Your task to perform on an android device: turn on airplane mode Image 0: 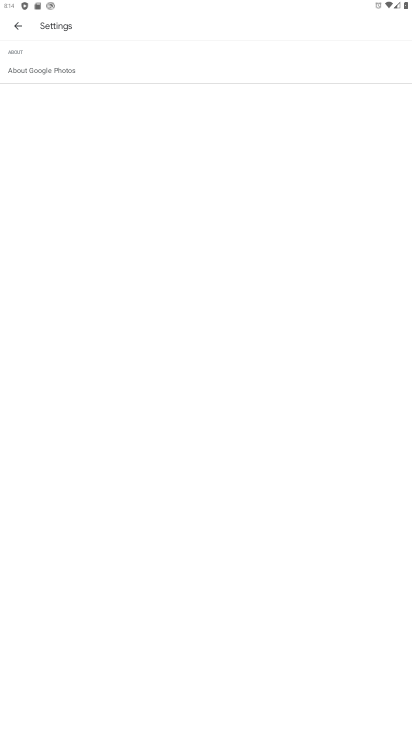
Step 0: drag from (276, 658) to (234, 208)
Your task to perform on an android device: turn on airplane mode Image 1: 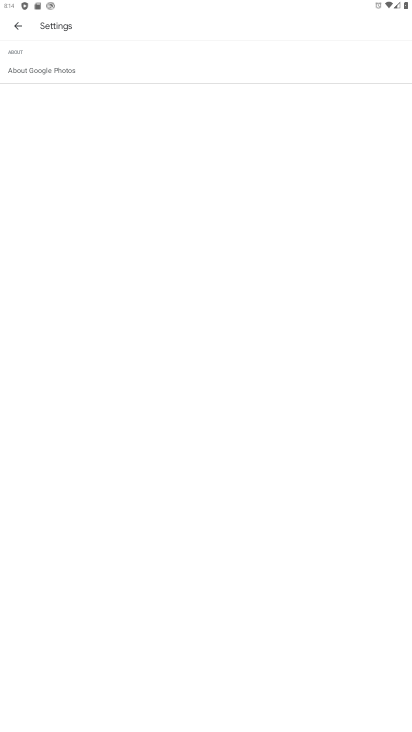
Step 1: press back button
Your task to perform on an android device: turn on airplane mode Image 2: 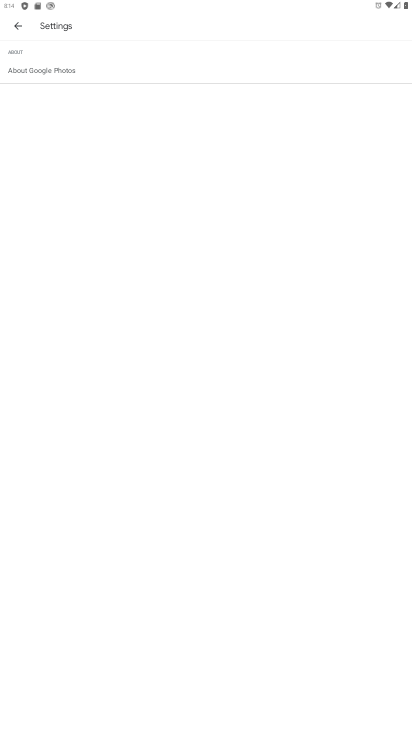
Step 2: press back button
Your task to perform on an android device: turn on airplane mode Image 3: 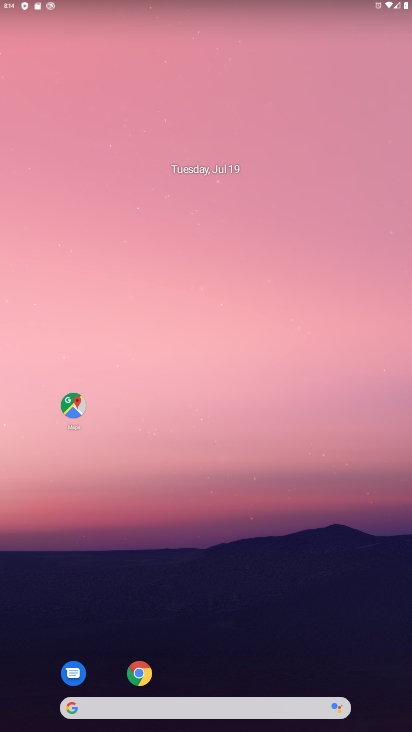
Step 3: drag from (197, 617) to (148, 147)
Your task to perform on an android device: turn on airplane mode Image 4: 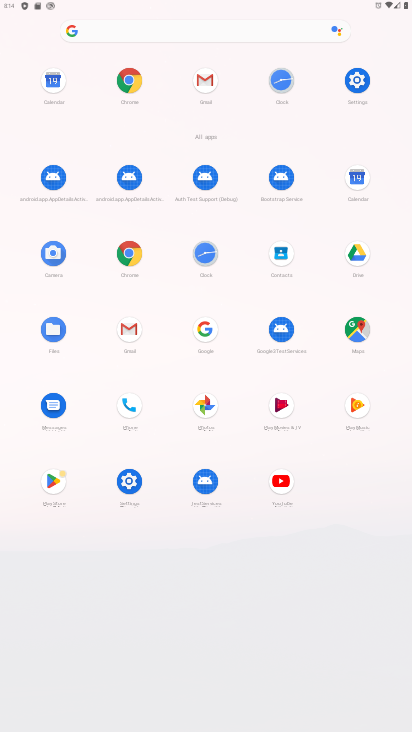
Step 4: click (361, 76)
Your task to perform on an android device: turn on airplane mode Image 5: 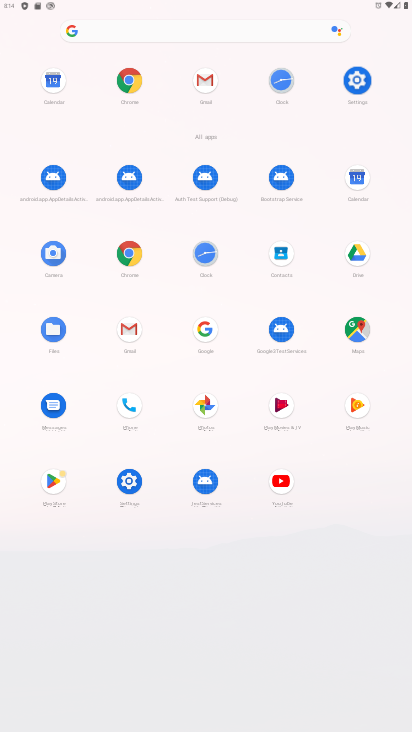
Step 5: click (360, 77)
Your task to perform on an android device: turn on airplane mode Image 6: 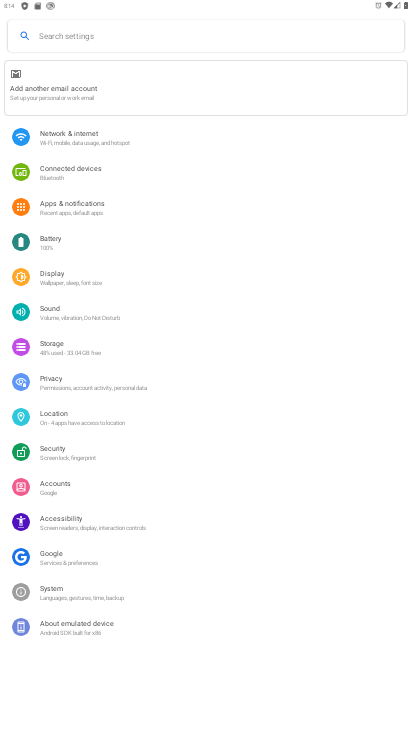
Step 6: click (79, 134)
Your task to perform on an android device: turn on airplane mode Image 7: 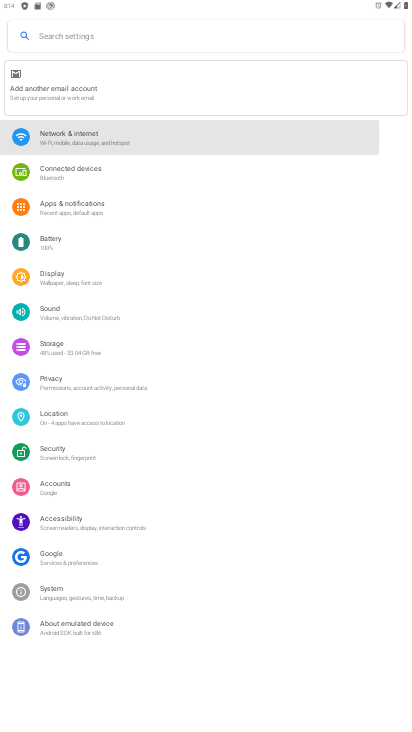
Step 7: click (81, 131)
Your task to perform on an android device: turn on airplane mode Image 8: 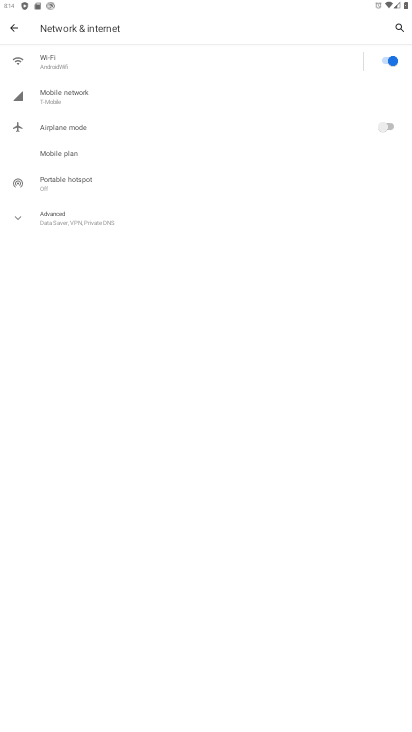
Step 8: click (383, 123)
Your task to perform on an android device: turn on airplane mode Image 9: 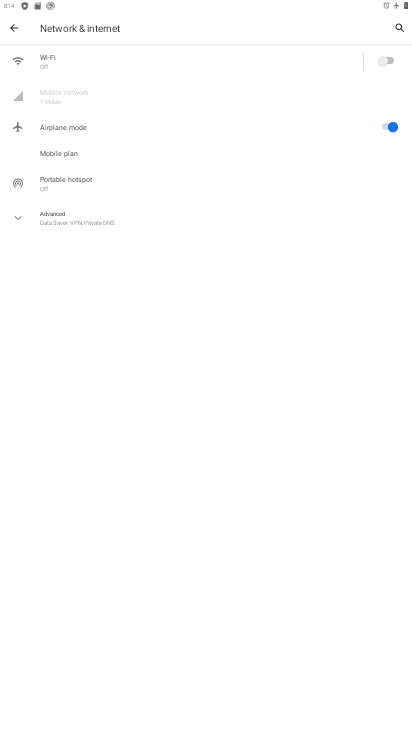
Step 9: task complete